Your task to perform on an android device: Empty the shopping cart on amazon. Add usb-b to the cart on amazon, then select checkout. Image 0: 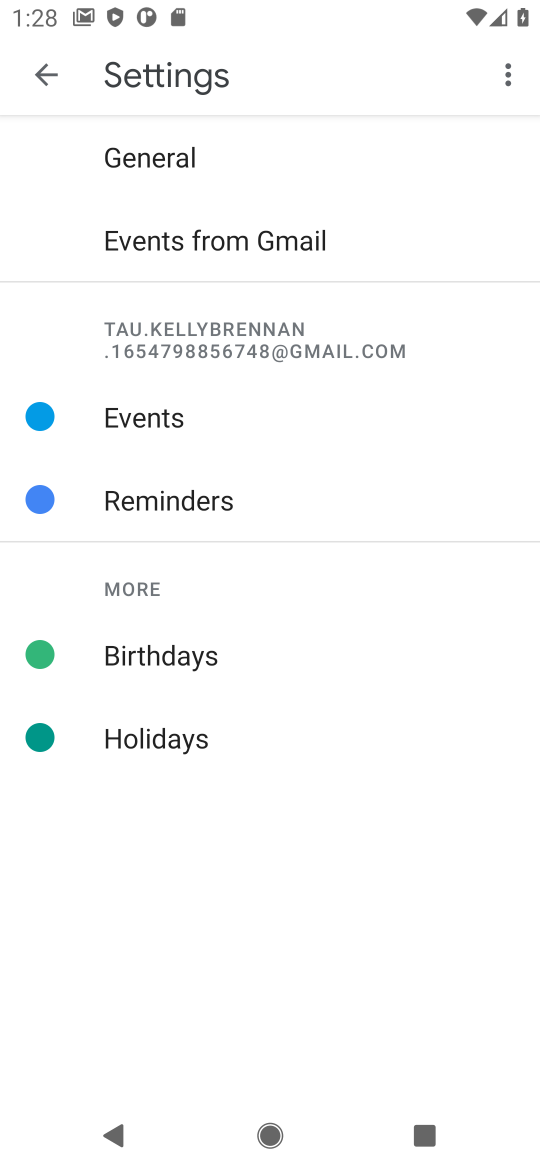
Step 0: press home button
Your task to perform on an android device: Empty the shopping cart on amazon. Add usb-b to the cart on amazon, then select checkout. Image 1: 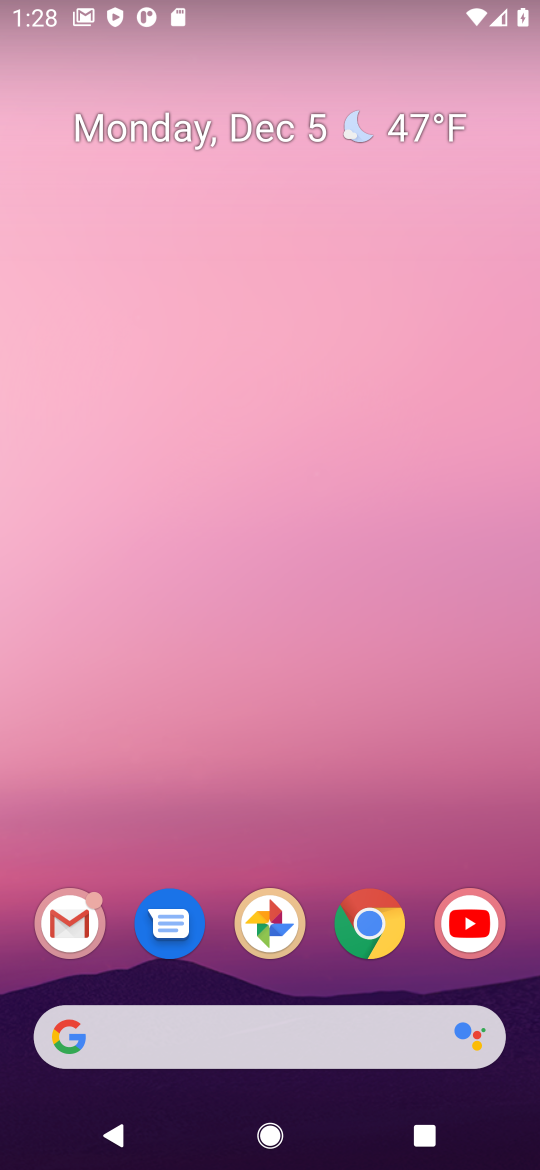
Step 1: click (181, 1056)
Your task to perform on an android device: Empty the shopping cart on amazon. Add usb-b to the cart on amazon, then select checkout. Image 2: 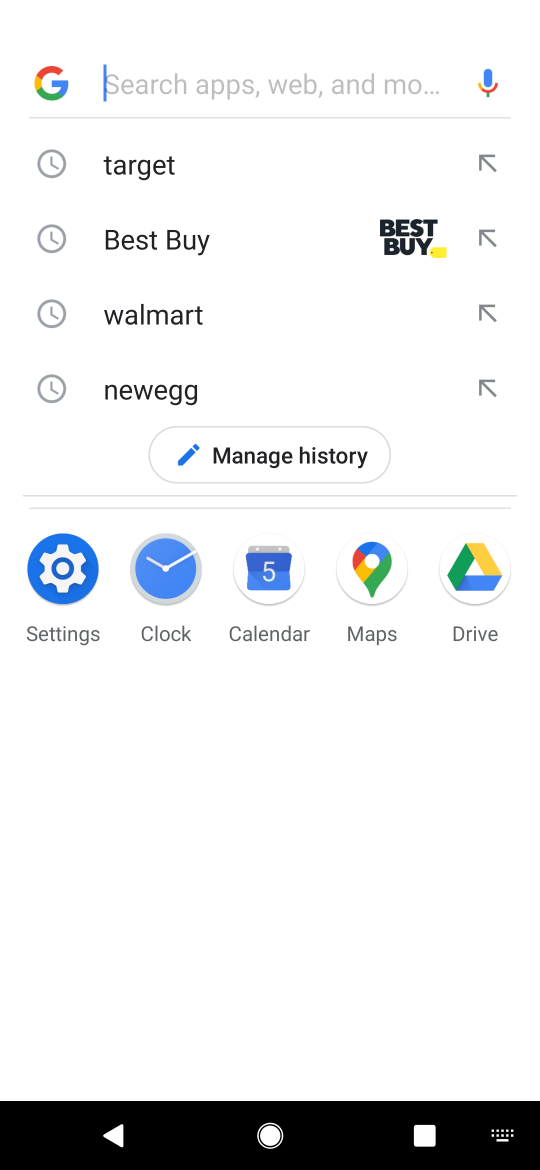
Step 2: type "amazon"
Your task to perform on an android device: Empty the shopping cart on amazon. Add usb-b to the cart on amazon, then select checkout. Image 3: 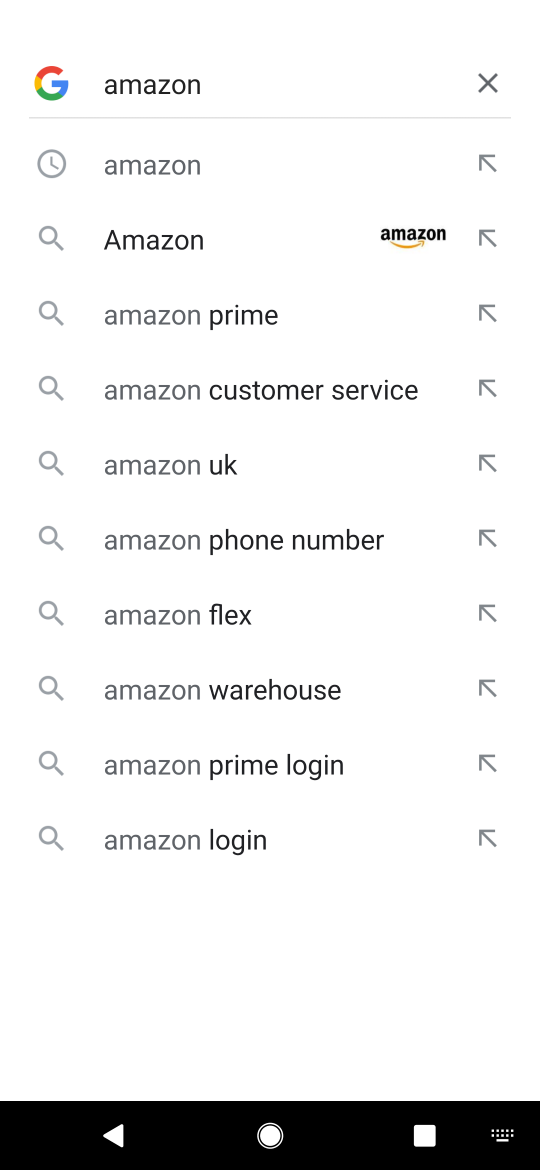
Step 3: click (151, 242)
Your task to perform on an android device: Empty the shopping cart on amazon. Add usb-b to the cart on amazon, then select checkout. Image 4: 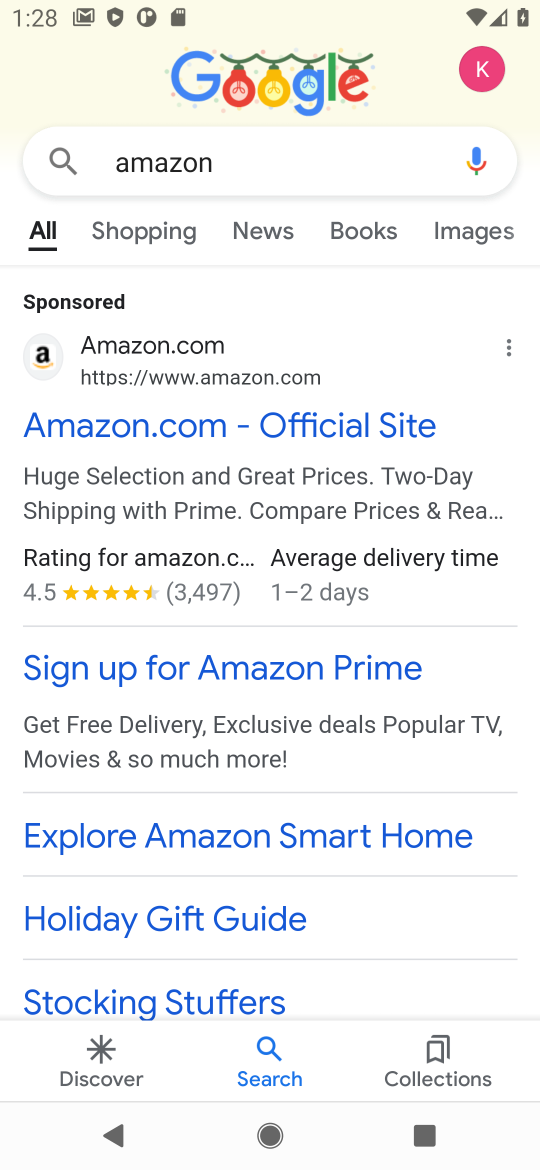
Step 4: click (344, 451)
Your task to perform on an android device: Empty the shopping cart on amazon. Add usb-b to the cart on amazon, then select checkout. Image 5: 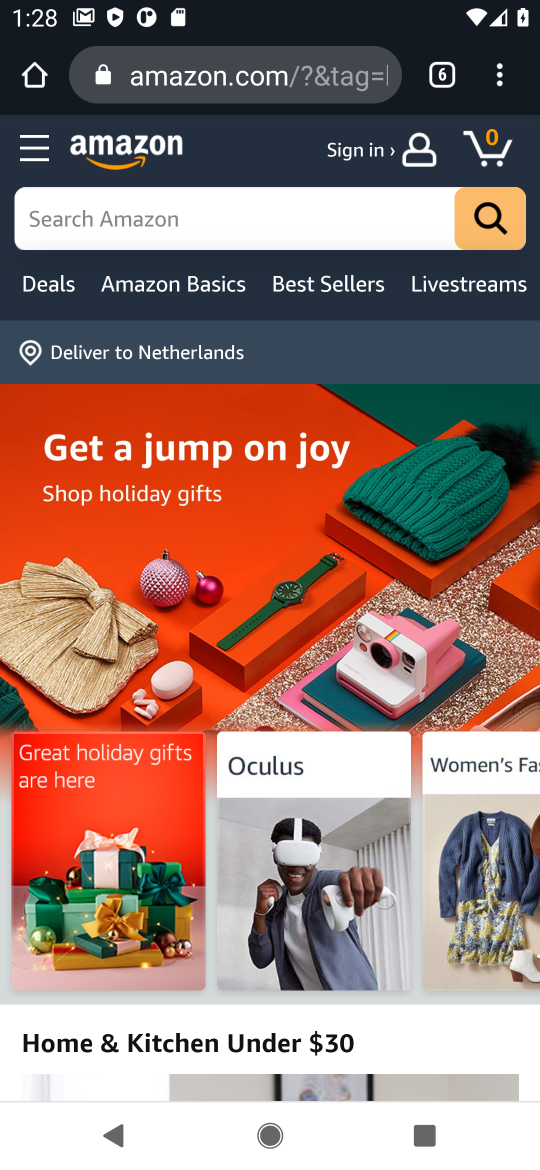
Step 5: click (120, 235)
Your task to perform on an android device: Empty the shopping cart on amazon. Add usb-b to the cart on amazon, then select checkout. Image 6: 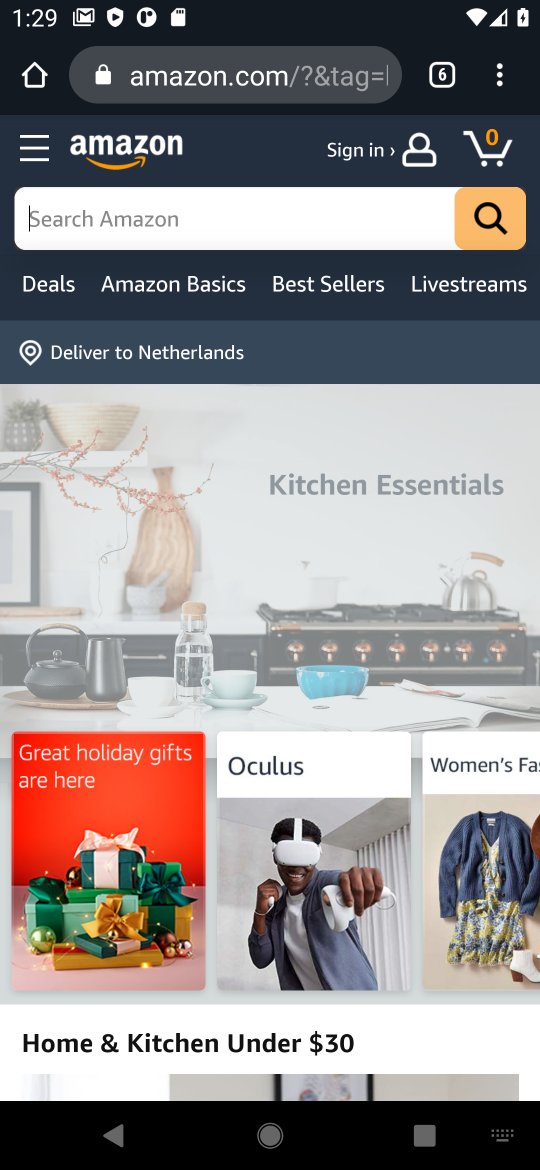
Step 6: type "usb-b to usb-c"
Your task to perform on an android device: Empty the shopping cart on amazon. Add usb-b to the cart on amazon, then select checkout. Image 7: 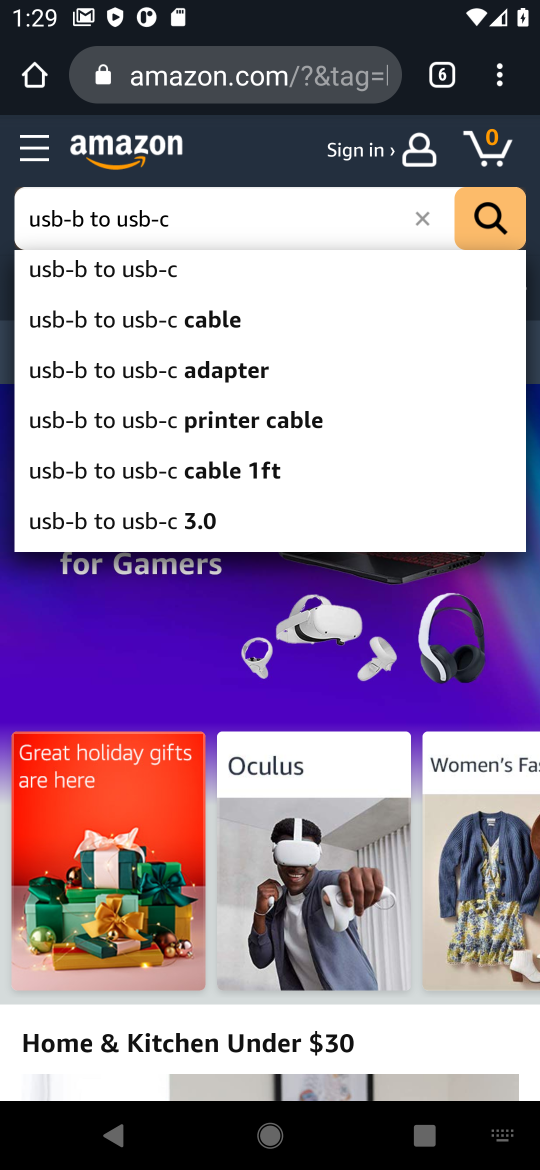
Step 7: click (480, 222)
Your task to perform on an android device: Empty the shopping cart on amazon. Add usb-b to the cart on amazon, then select checkout. Image 8: 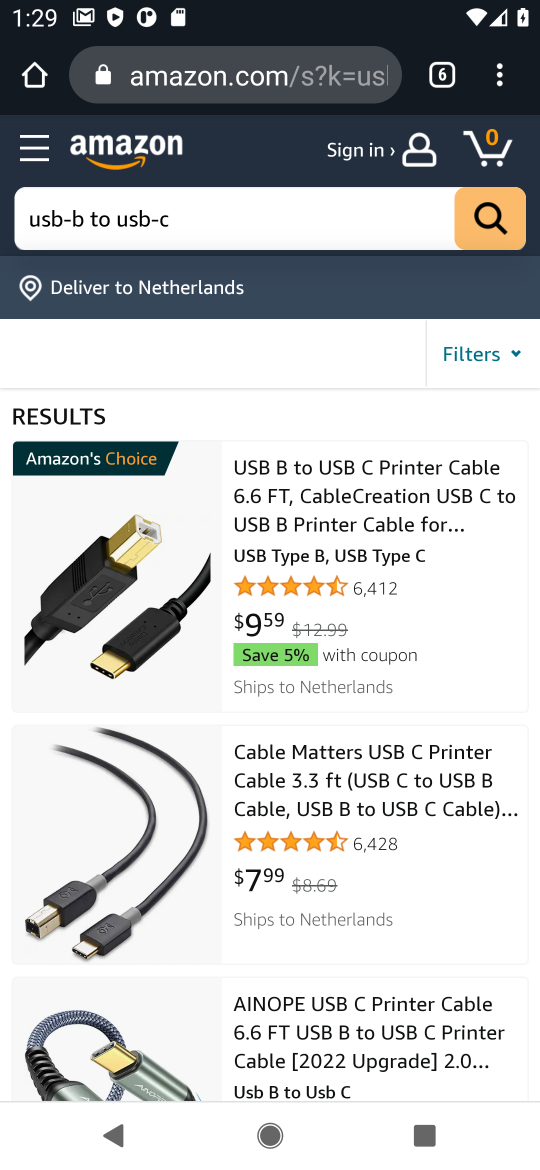
Step 8: click (261, 490)
Your task to perform on an android device: Empty the shopping cart on amazon. Add usb-b to the cart on amazon, then select checkout. Image 9: 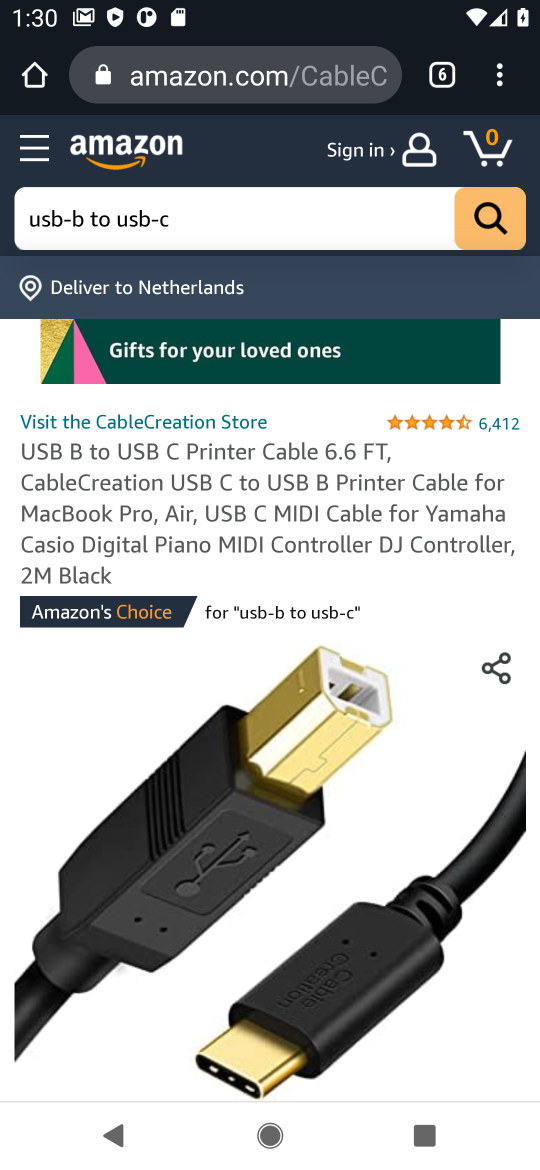
Step 9: task complete